Your task to perform on an android device: turn off sleep mode Image 0: 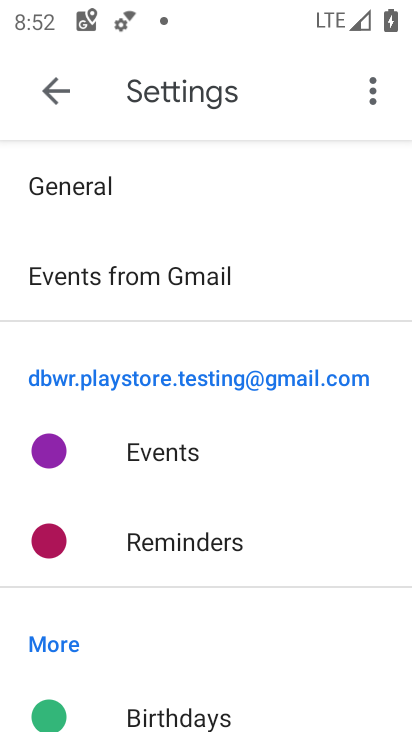
Step 0: press home button
Your task to perform on an android device: turn off sleep mode Image 1: 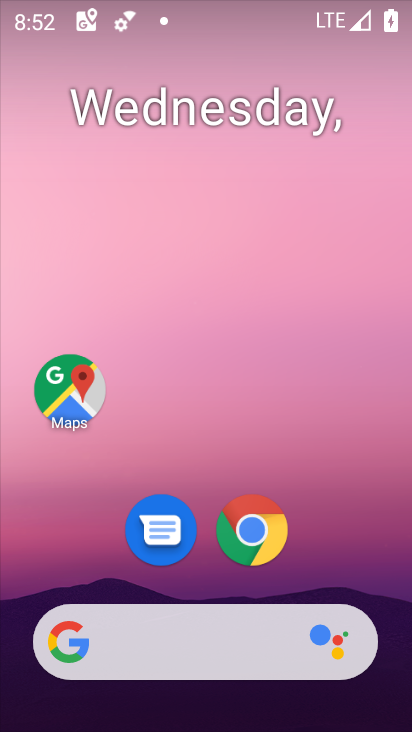
Step 1: drag from (394, 662) to (256, 56)
Your task to perform on an android device: turn off sleep mode Image 2: 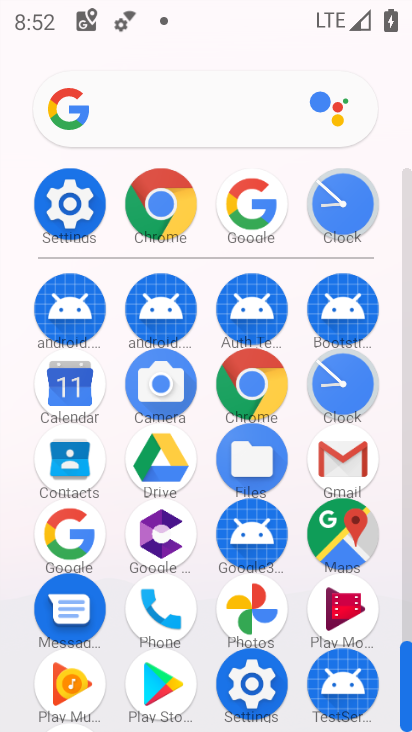
Step 2: click (74, 197)
Your task to perform on an android device: turn off sleep mode Image 3: 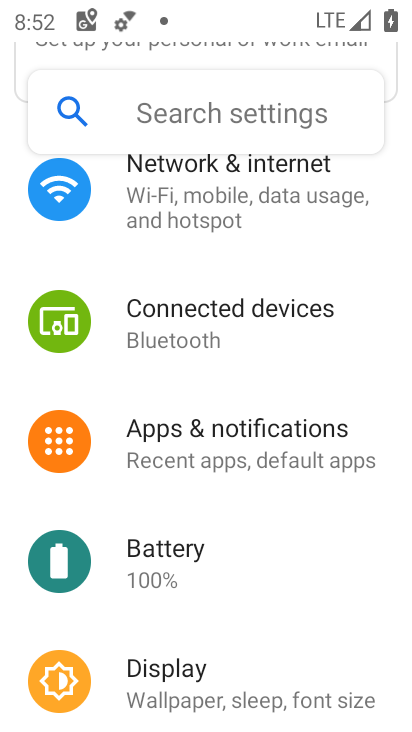
Step 3: task complete